Your task to perform on an android device: show emergency info Image 0: 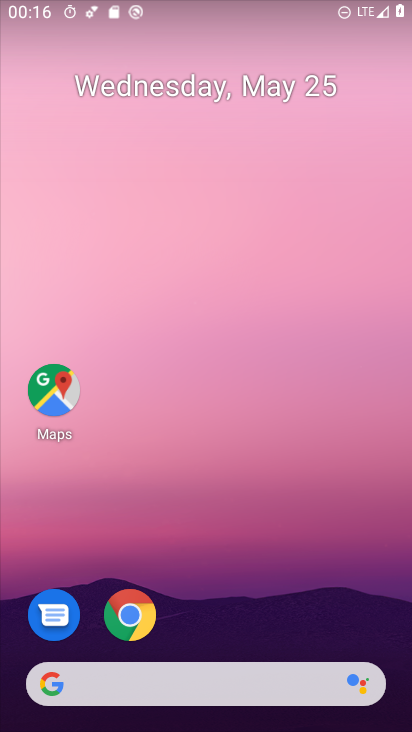
Step 0: press home button
Your task to perform on an android device: show emergency info Image 1: 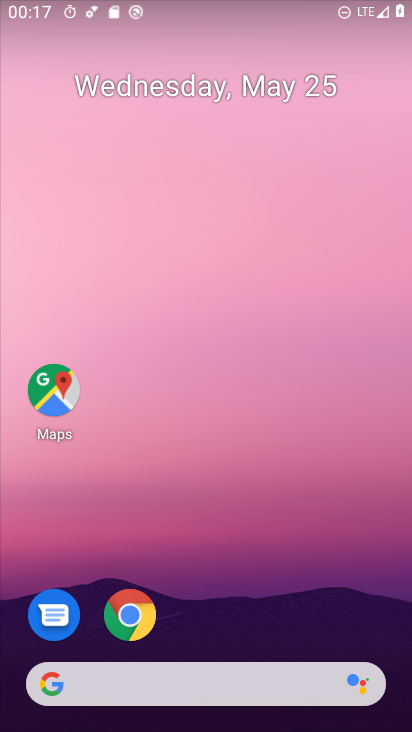
Step 1: drag from (232, 710) to (313, 20)
Your task to perform on an android device: show emergency info Image 2: 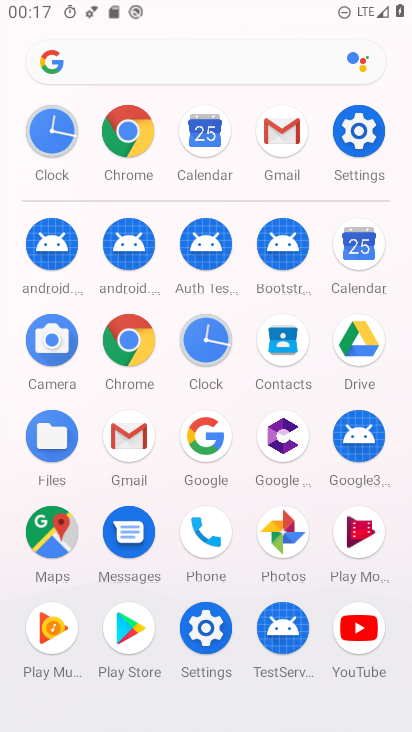
Step 2: click (355, 135)
Your task to perform on an android device: show emergency info Image 3: 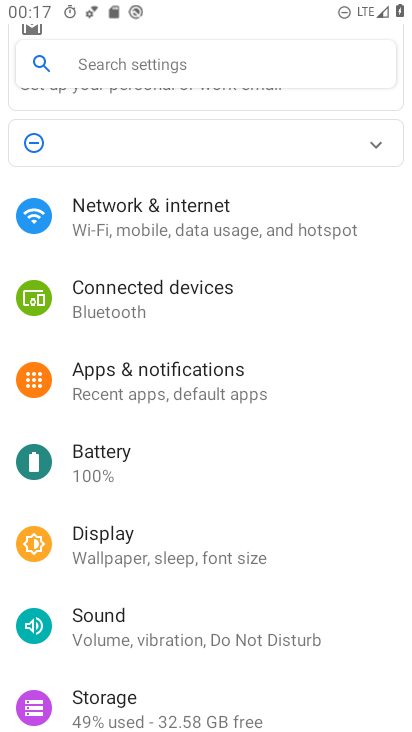
Step 3: click (124, 74)
Your task to perform on an android device: show emergency info Image 4: 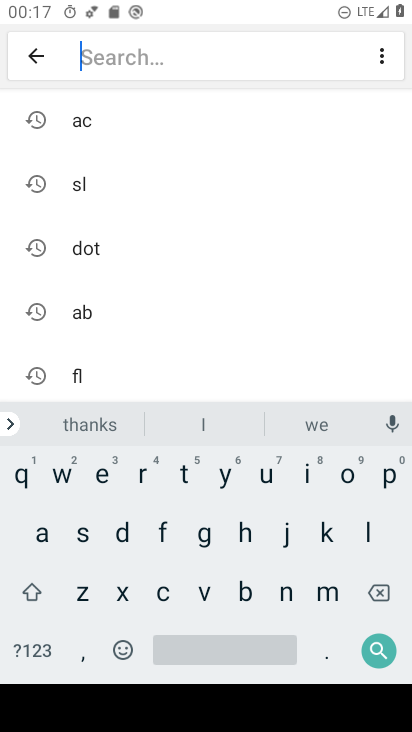
Step 4: click (107, 477)
Your task to perform on an android device: show emergency info Image 5: 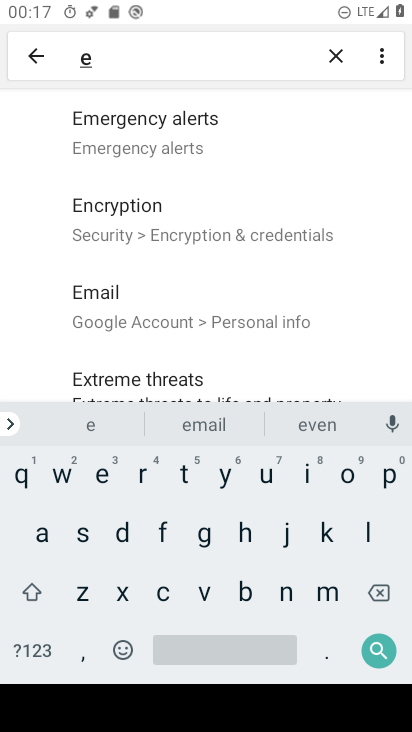
Step 5: click (312, 608)
Your task to perform on an android device: show emergency info Image 6: 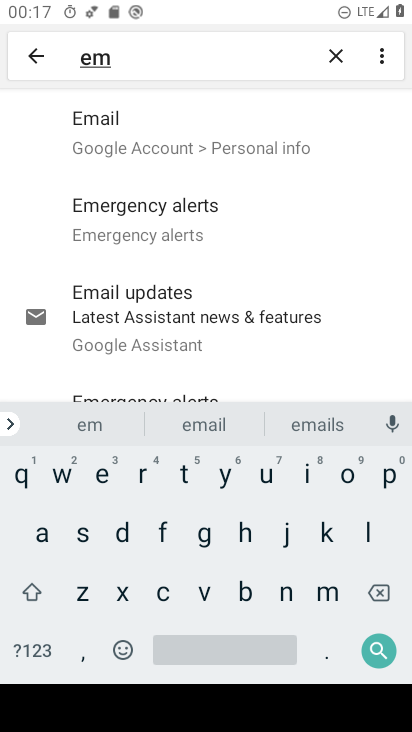
Step 6: click (102, 488)
Your task to perform on an android device: show emergency info Image 7: 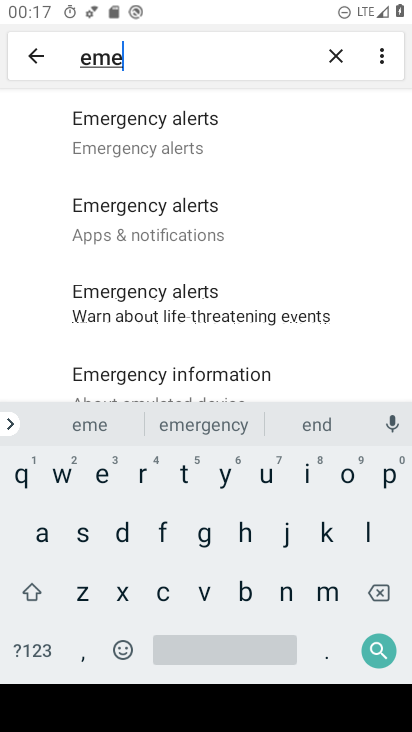
Step 7: click (208, 415)
Your task to perform on an android device: show emergency info Image 8: 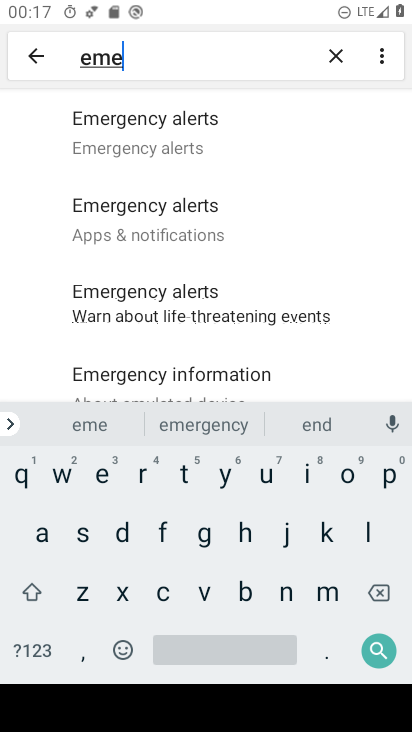
Step 8: click (211, 427)
Your task to perform on an android device: show emergency info Image 9: 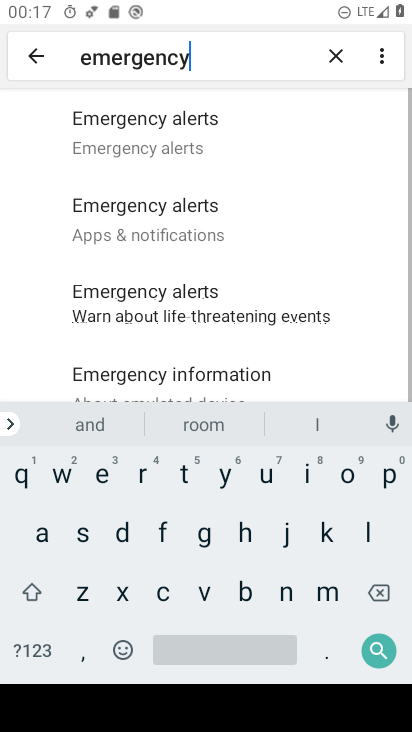
Step 9: click (306, 473)
Your task to perform on an android device: show emergency info Image 10: 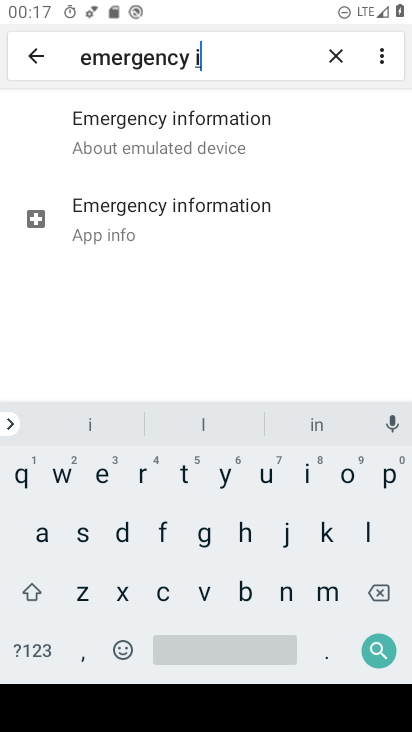
Step 10: click (232, 140)
Your task to perform on an android device: show emergency info Image 11: 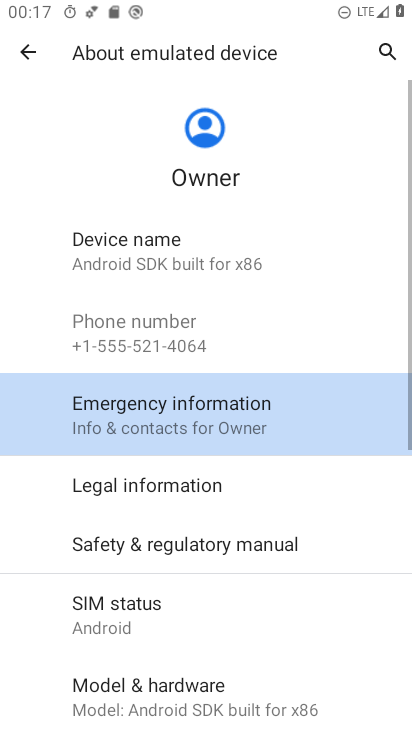
Step 11: click (172, 419)
Your task to perform on an android device: show emergency info Image 12: 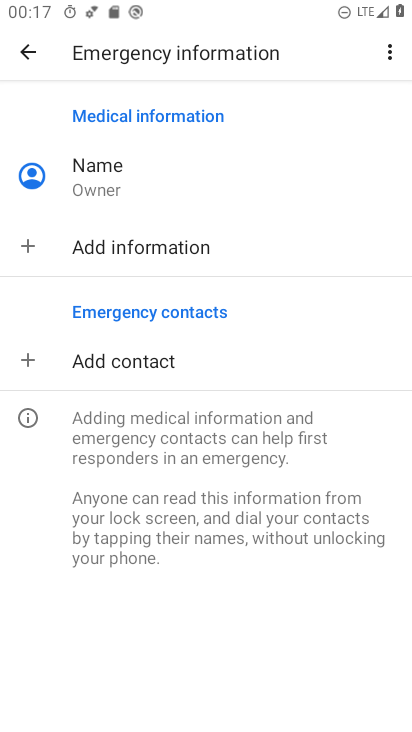
Step 12: task complete